Your task to perform on an android device: Go to wifi settings Image 0: 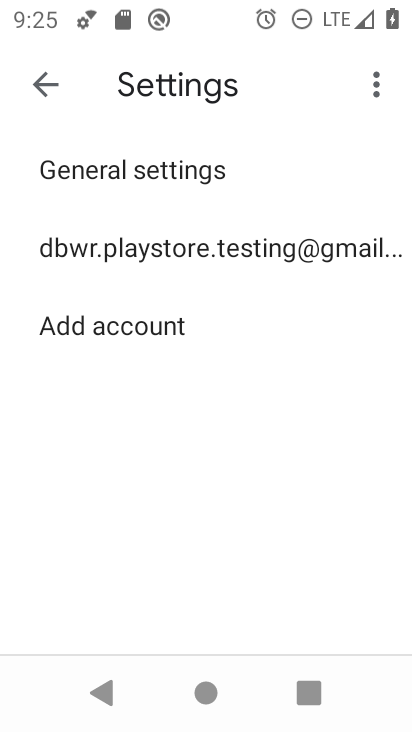
Step 0: press home button
Your task to perform on an android device: Go to wifi settings Image 1: 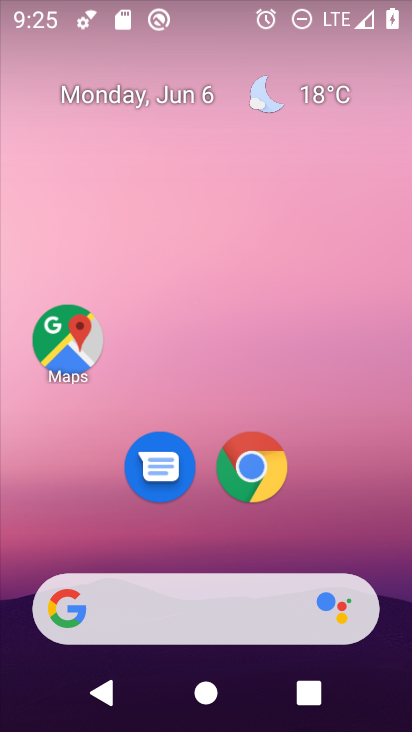
Step 1: drag from (357, 506) to (398, 274)
Your task to perform on an android device: Go to wifi settings Image 2: 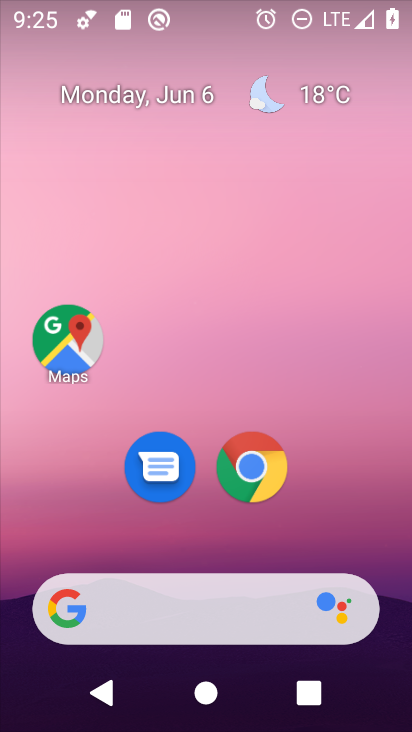
Step 2: drag from (338, 514) to (396, 60)
Your task to perform on an android device: Go to wifi settings Image 3: 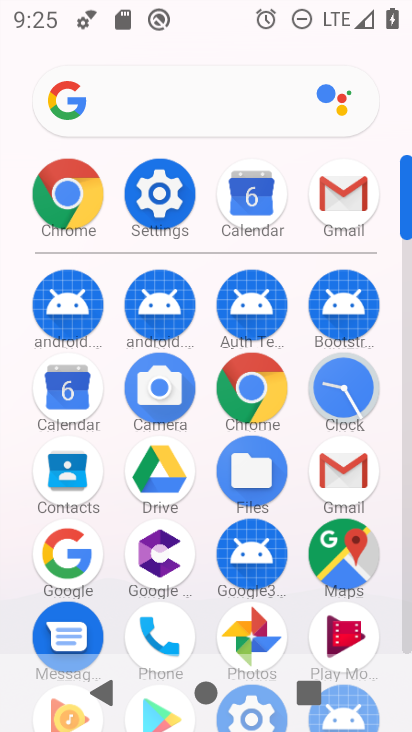
Step 3: click (166, 214)
Your task to perform on an android device: Go to wifi settings Image 4: 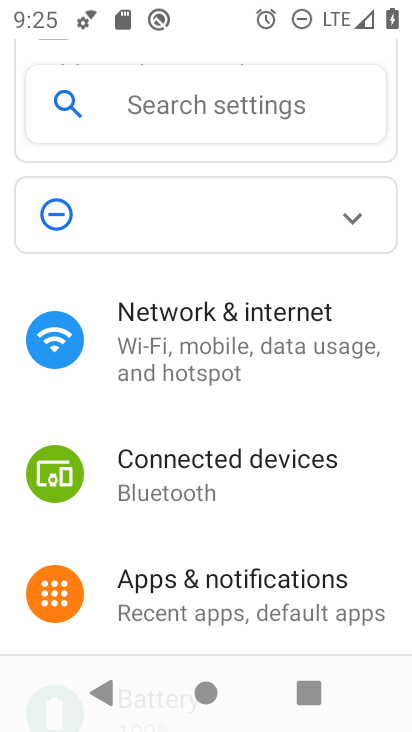
Step 4: drag from (354, 500) to (383, 345)
Your task to perform on an android device: Go to wifi settings Image 5: 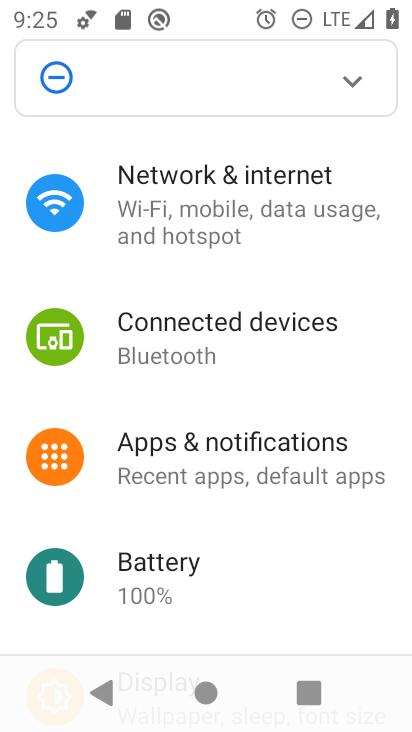
Step 5: drag from (346, 558) to (347, 337)
Your task to perform on an android device: Go to wifi settings Image 6: 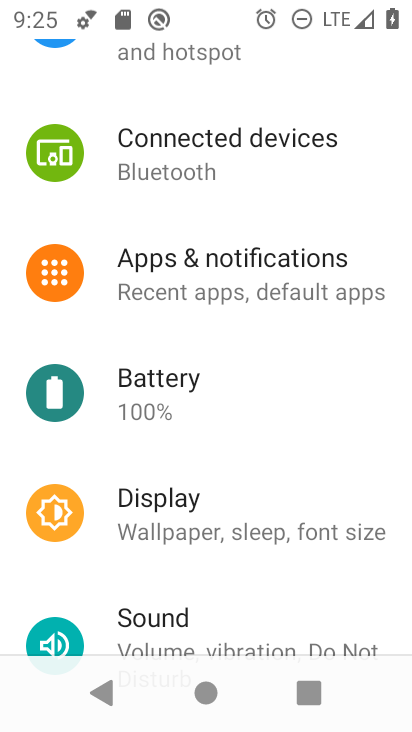
Step 6: drag from (340, 479) to (323, 307)
Your task to perform on an android device: Go to wifi settings Image 7: 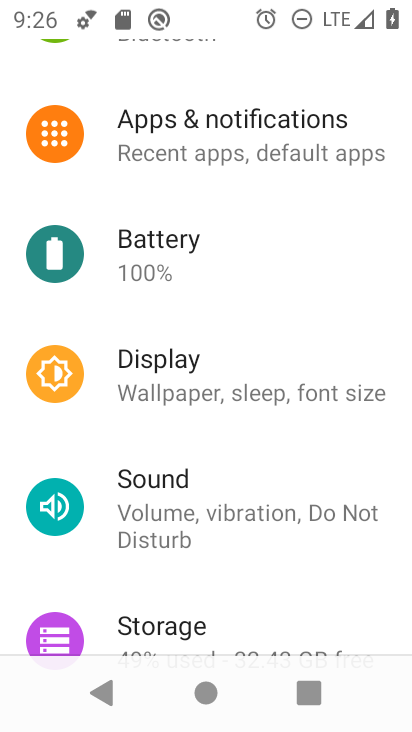
Step 7: drag from (366, 205) to (350, 366)
Your task to perform on an android device: Go to wifi settings Image 8: 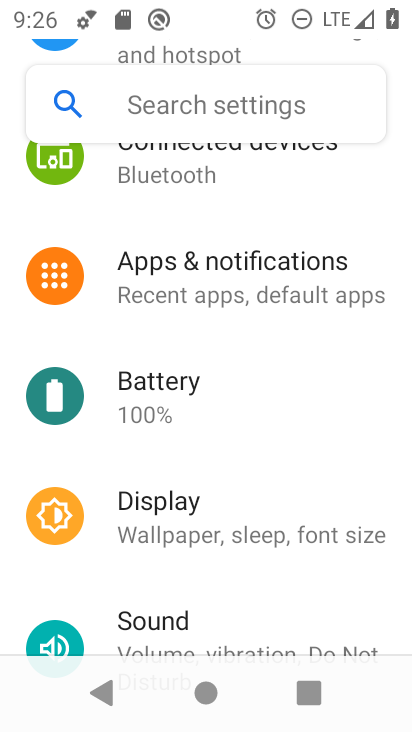
Step 8: drag from (350, 187) to (367, 403)
Your task to perform on an android device: Go to wifi settings Image 9: 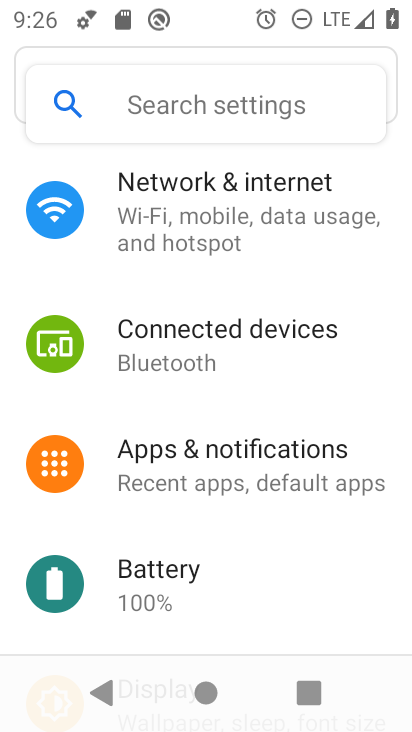
Step 9: click (298, 209)
Your task to perform on an android device: Go to wifi settings Image 10: 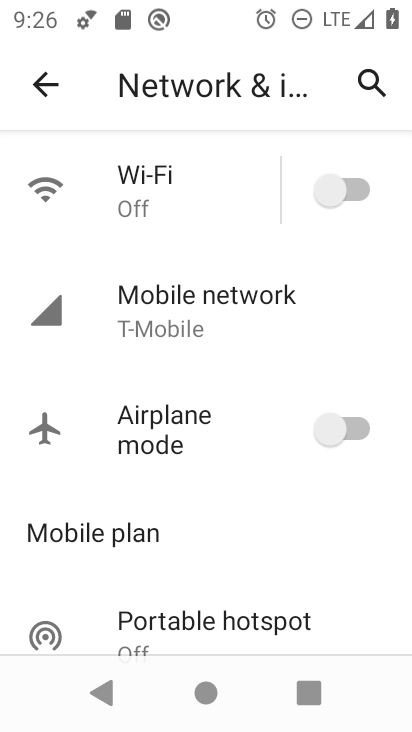
Step 10: click (138, 188)
Your task to perform on an android device: Go to wifi settings Image 11: 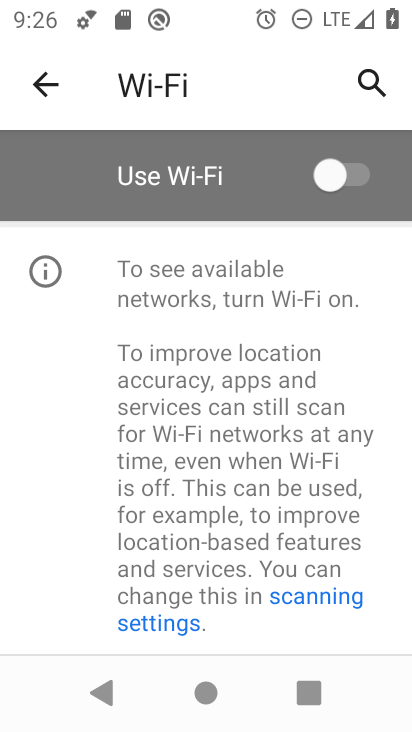
Step 11: task complete